Your task to perform on an android device: delete the emails in spam in the gmail app Image 0: 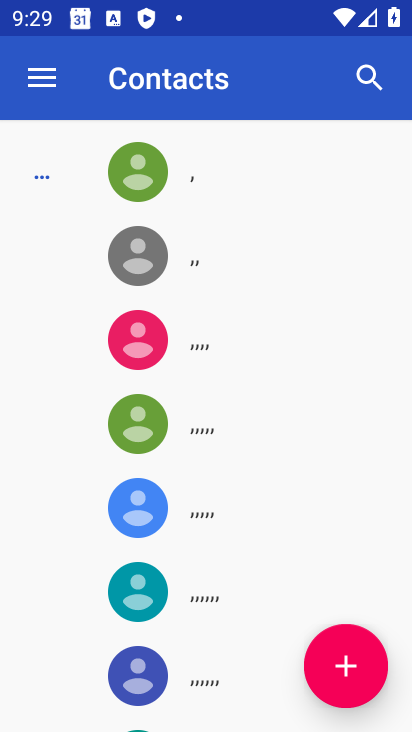
Step 0: press home button
Your task to perform on an android device: delete the emails in spam in the gmail app Image 1: 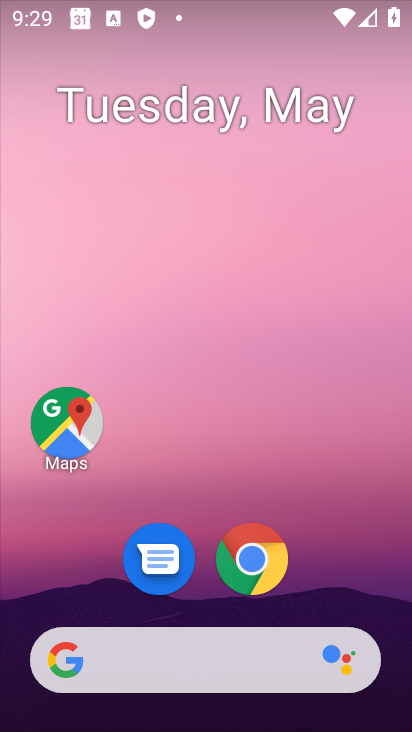
Step 1: drag from (261, 648) to (247, 214)
Your task to perform on an android device: delete the emails in spam in the gmail app Image 2: 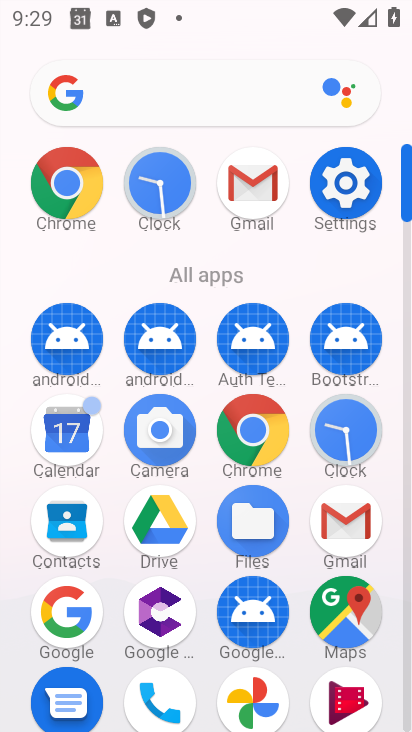
Step 2: click (339, 533)
Your task to perform on an android device: delete the emails in spam in the gmail app Image 3: 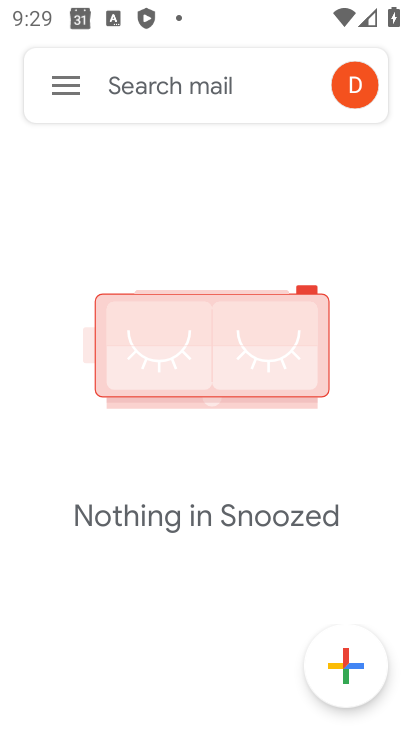
Step 3: click (58, 89)
Your task to perform on an android device: delete the emails in spam in the gmail app Image 4: 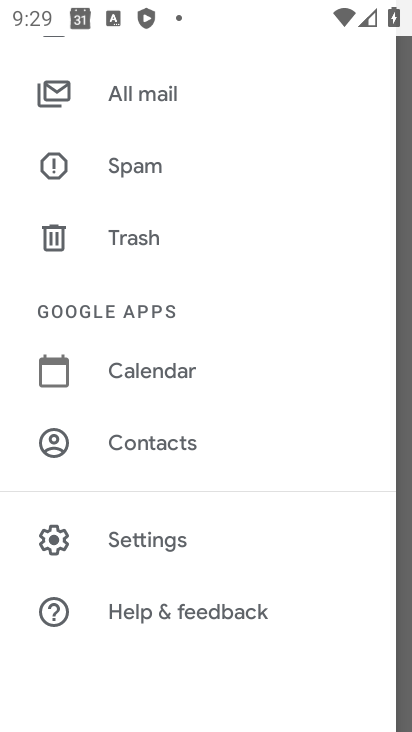
Step 4: click (135, 157)
Your task to perform on an android device: delete the emails in spam in the gmail app Image 5: 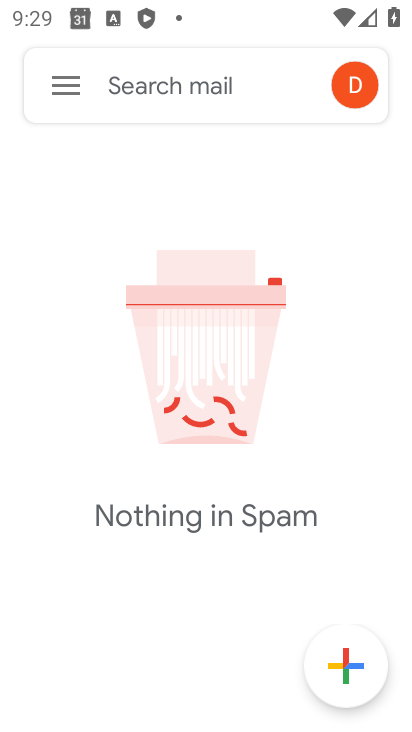
Step 5: task complete